Your task to perform on an android device: Open Amazon Image 0: 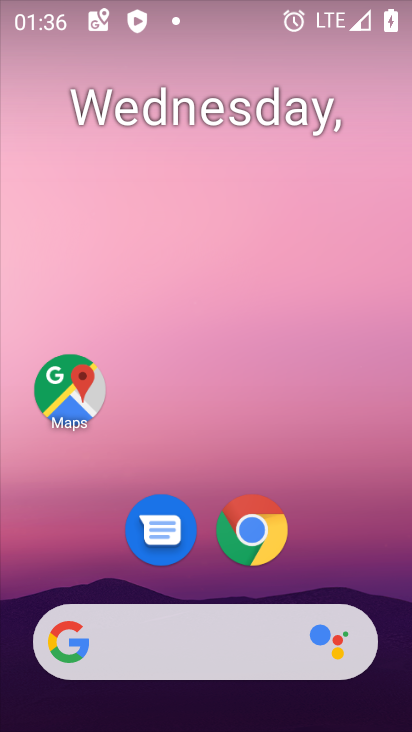
Step 0: drag from (387, 533) to (353, 180)
Your task to perform on an android device: Open Amazon Image 1: 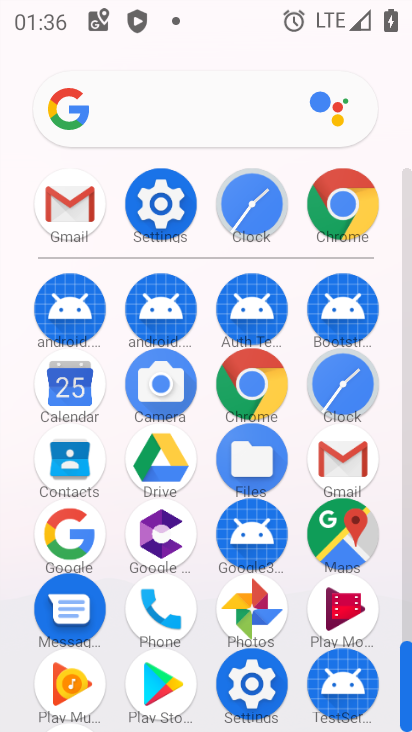
Step 1: click (270, 402)
Your task to perform on an android device: Open Amazon Image 2: 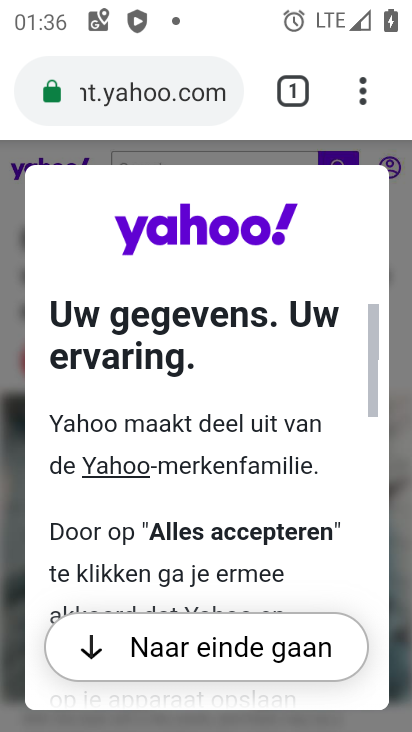
Step 2: click (303, 93)
Your task to perform on an android device: Open Amazon Image 3: 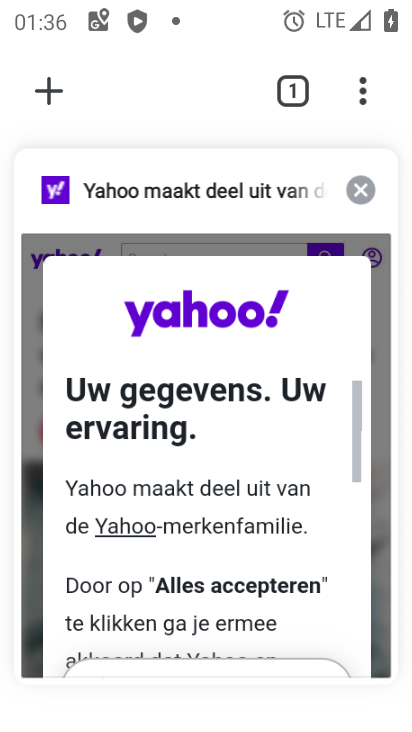
Step 3: click (34, 96)
Your task to perform on an android device: Open Amazon Image 4: 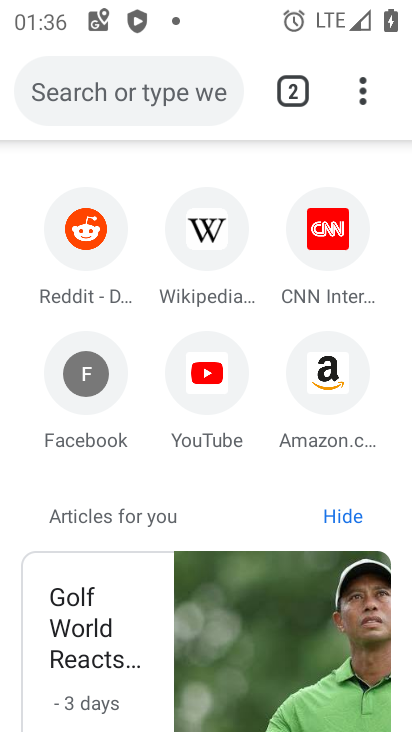
Step 4: click (324, 378)
Your task to perform on an android device: Open Amazon Image 5: 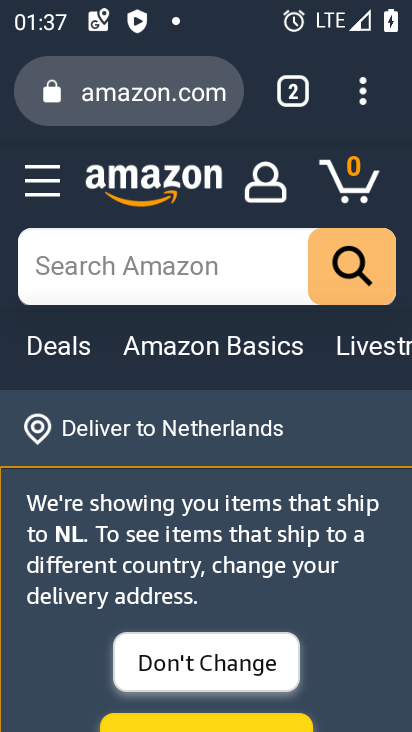
Step 5: task complete